Your task to perform on an android device: find photos in the google photos app Image 0: 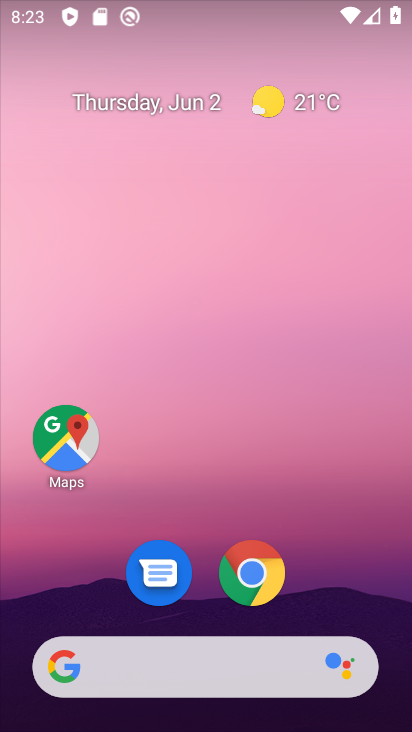
Step 0: drag from (341, 575) to (360, 39)
Your task to perform on an android device: find photos in the google photos app Image 1: 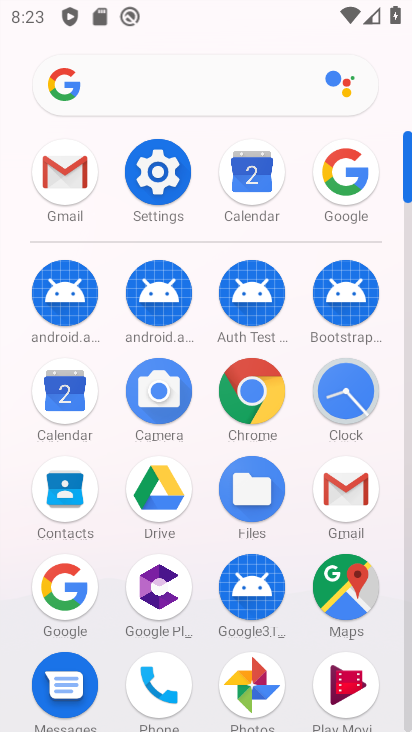
Step 1: click (247, 680)
Your task to perform on an android device: find photos in the google photos app Image 2: 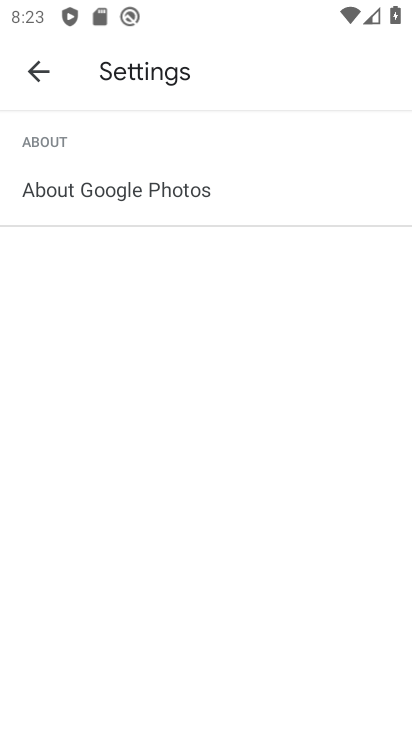
Step 2: task complete